Your task to perform on an android device: remove spam from my inbox in the gmail app Image 0: 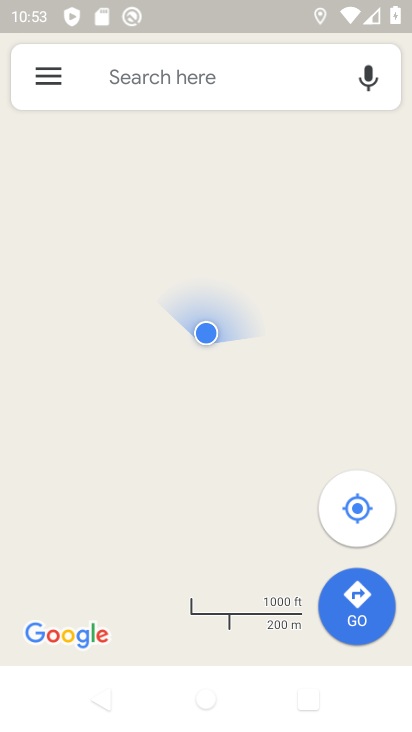
Step 0: press home button
Your task to perform on an android device: remove spam from my inbox in the gmail app Image 1: 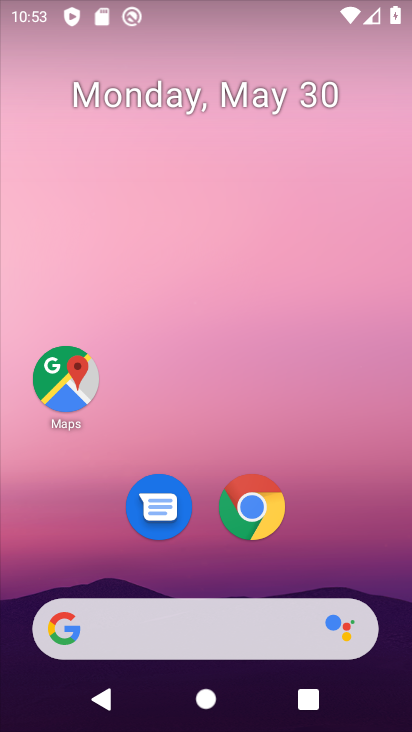
Step 1: drag from (143, 728) to (168, 71)
Your task to perform on an android device: remove spam from my inbox in the gmail app Image 2: 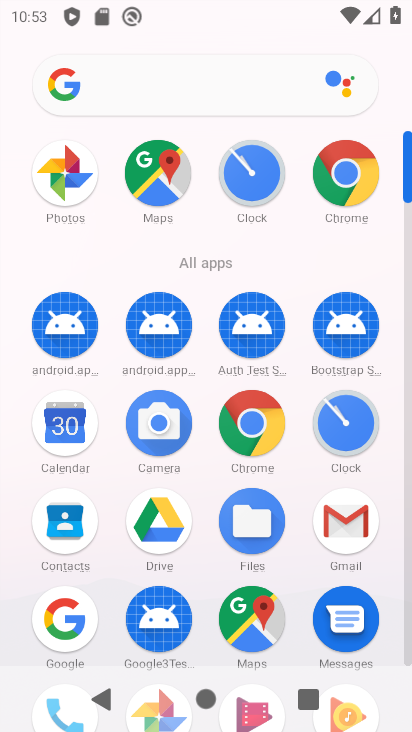
Step 2: click (349, 515)
Your task to perform on an android device: remove spam from my inbox in the gmail app Image 3: 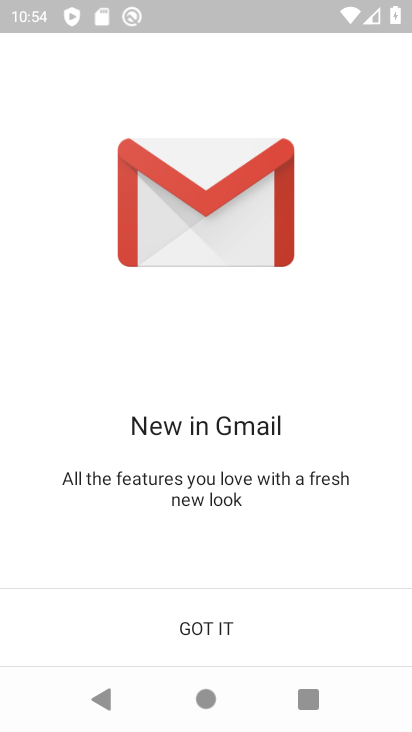
Step 3: click (191, 616)
Your task to perform on an android device: remove spam from my inbox in the gmail app Image 4: 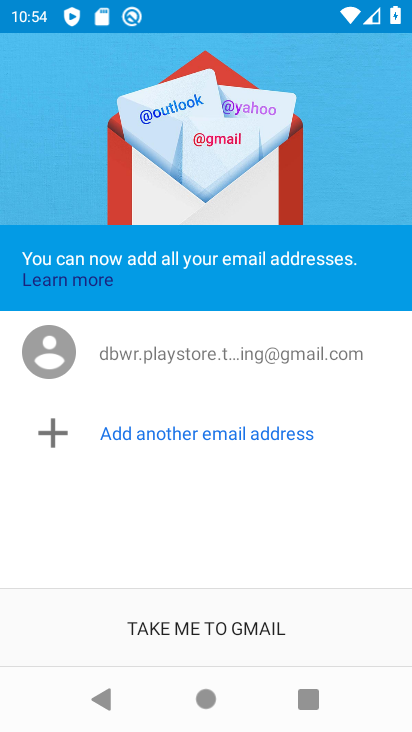
Step 4: click (201, 623)
Your task to perform on an android device: remove spam from my inbox in the gmail app Image 5: 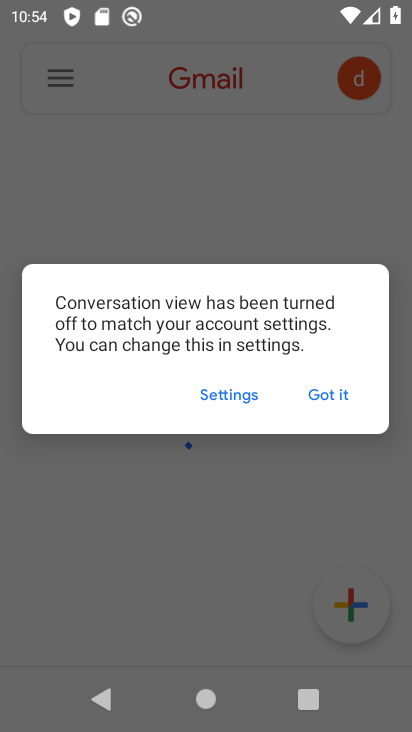
Step 5: click (345, 402)
Your task to perform on an android device: remove spam from my inbox in the gmail app Image 6: 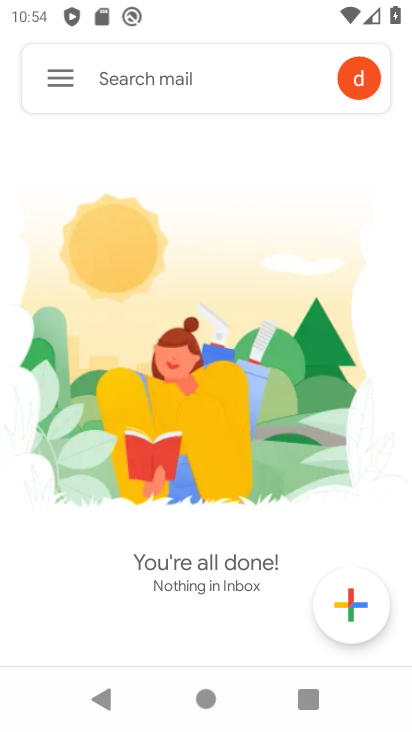
Step 6: click (61, 76)
Your task to perform on an android device: remove spam from my inbox in the gmail app Image 7: 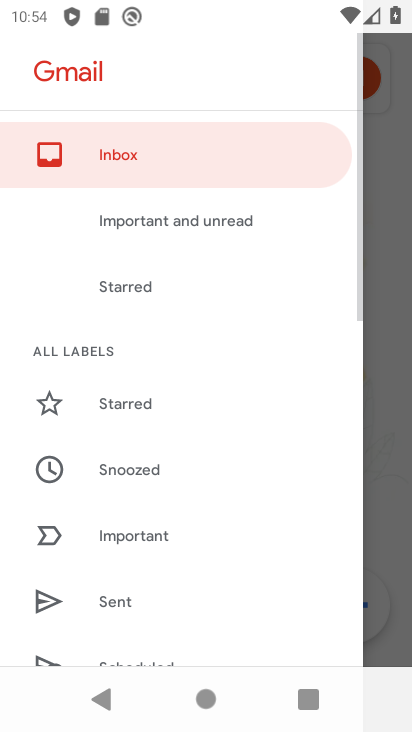
Step 7: drag from (167, 579) to (171, 243)
Your task to perform on an android device: remove spam from my inbox in the gmail app Image 8: 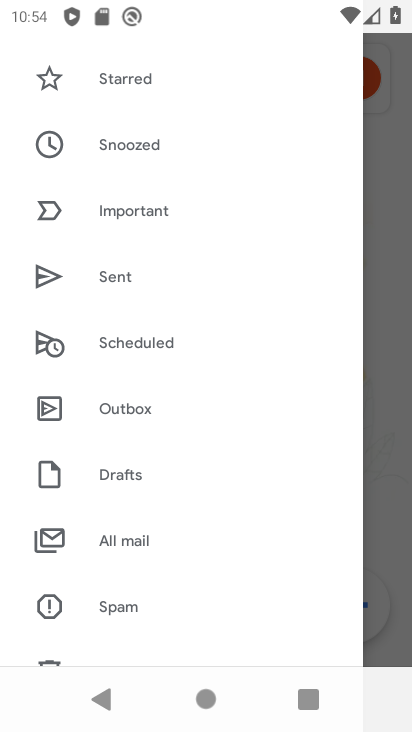
Step 8: click (118, 611)
Your task to perform on an android device: remove spam from my inbox in the gmail app Image 9: 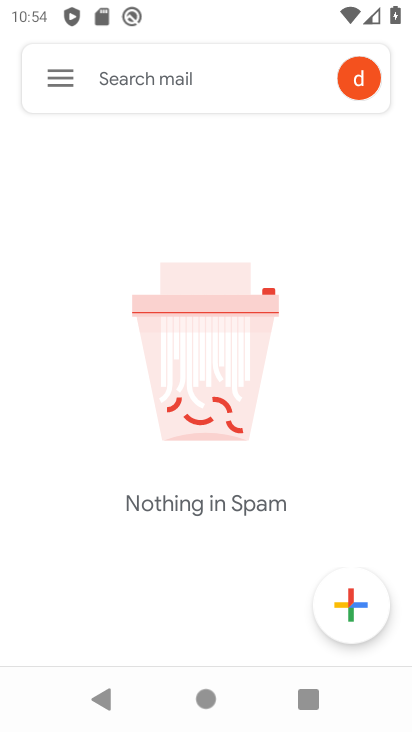
Step 9: task complete